Your task to perform on an android device: set default search engine in the chrome app Image 0: 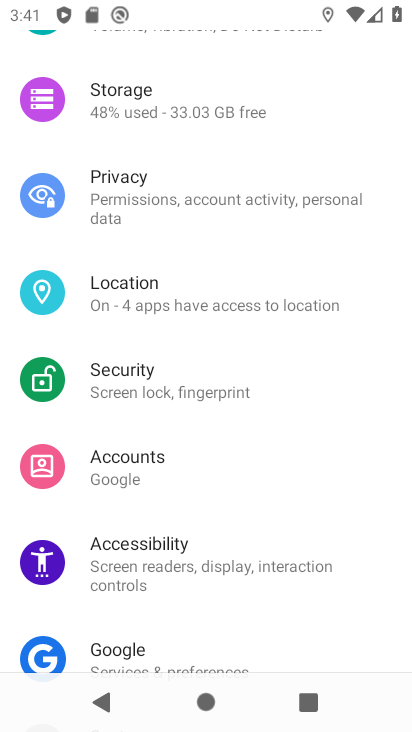
Step 0: press home button
Your task to perform on an android device: set default search engine in the chrome app Image 1: 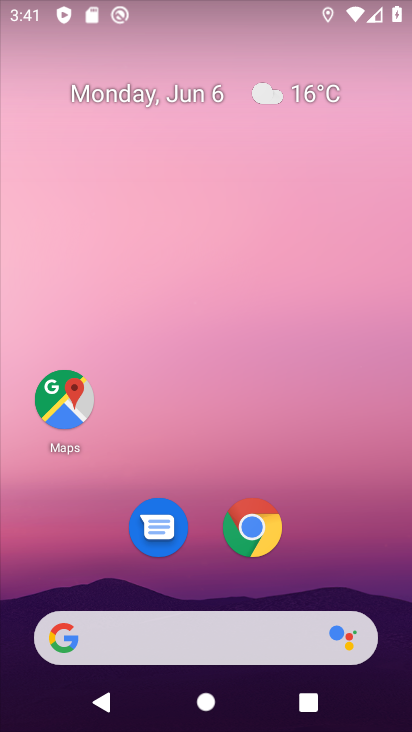
Step 1: click (269, 523)
Your task to perform on an android device: set default search engine in the chrome app Image 2: 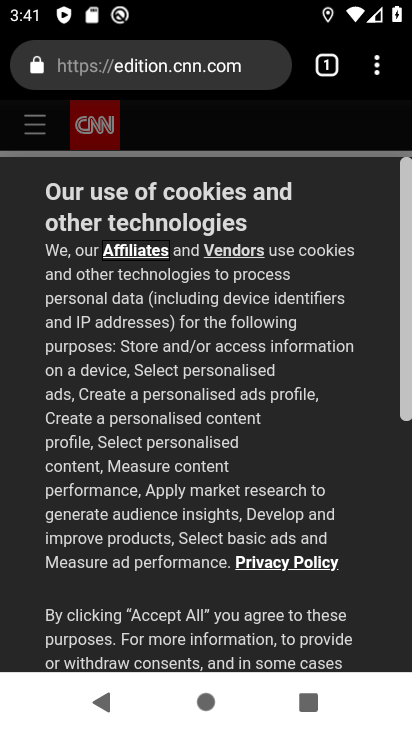
Step 2: click (378, 69)
Your task to perform on an android device: set default search engine in the chrome app Image 3: 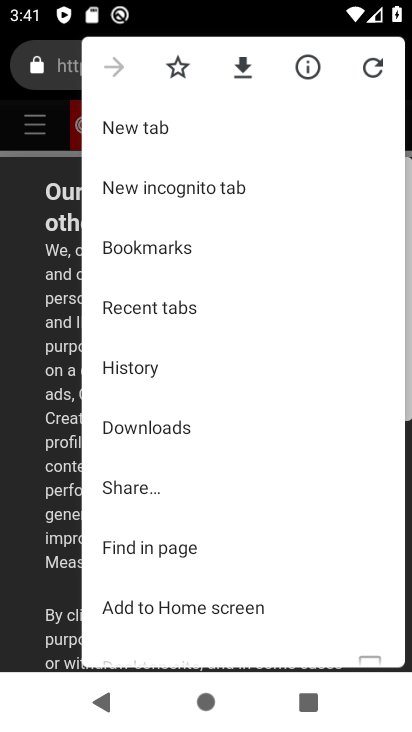
Step 3: drag from (298, 434) to (273, 43)
Your task to perform on an android device: set default search engine in the chrome app Image 4: 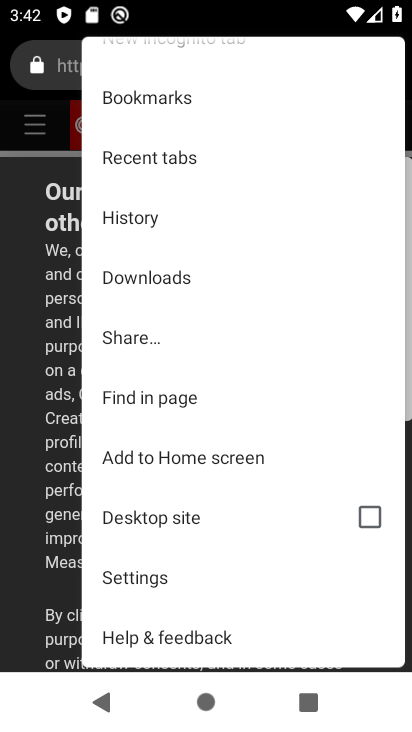
Step 4: click (157, 572)
Your task to perform on an android device: set default search engine in the chrome app Image 5: 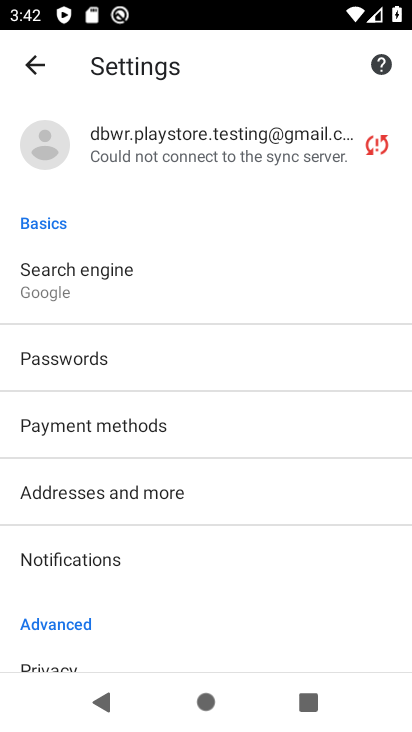
Step 5: drag from (259, 552) to (298, 227)
Your task to perform on an android device: set default search engine in the chrome app Image 6: 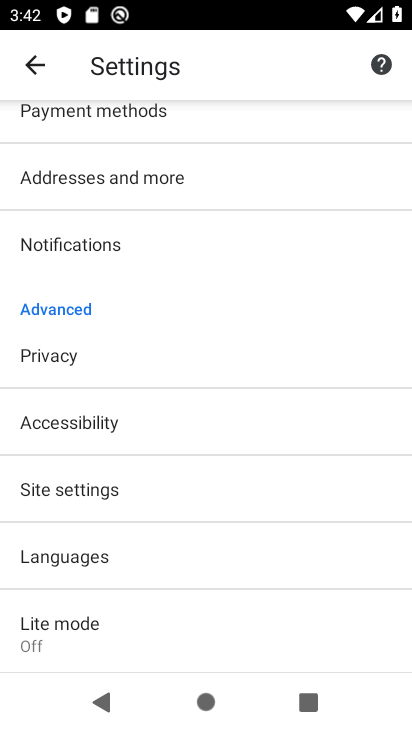
Step 6: drag from (257, 520) to (246, 308)
Your task to perform on an android device: set default search engine in the chrome app Image 7: 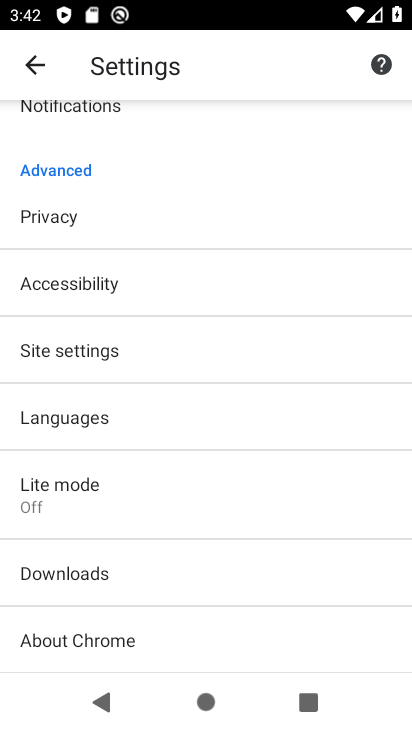
Step 7: click (116, 209)
Your task to perform on an android device: set default search engine in the chrome app Image 8: 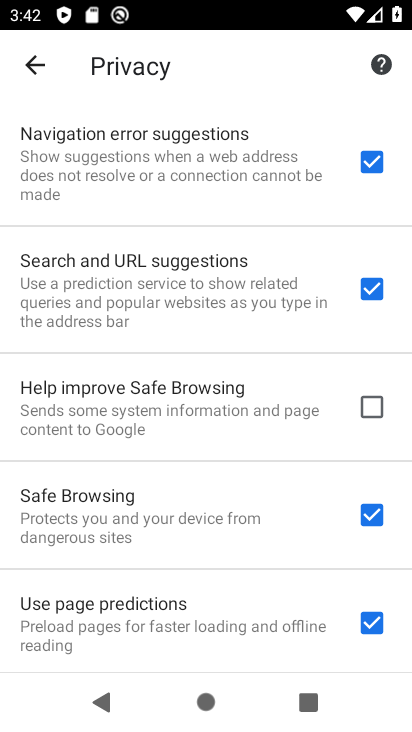
Step 8: drag from (117, 346) to (22, 25)
Your task to perform on an android device: set default search engine in the chrome app Image 9: 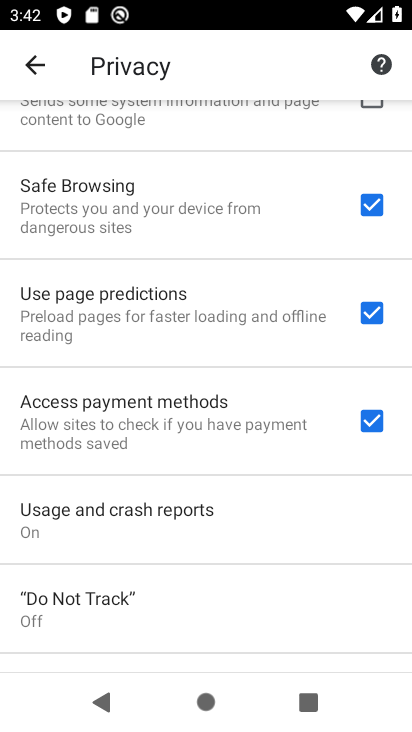
Step 9: drag from (184, 492) to (109, 48)
Your task to perform on an android device: set default search engine in the chrome app Image 10: 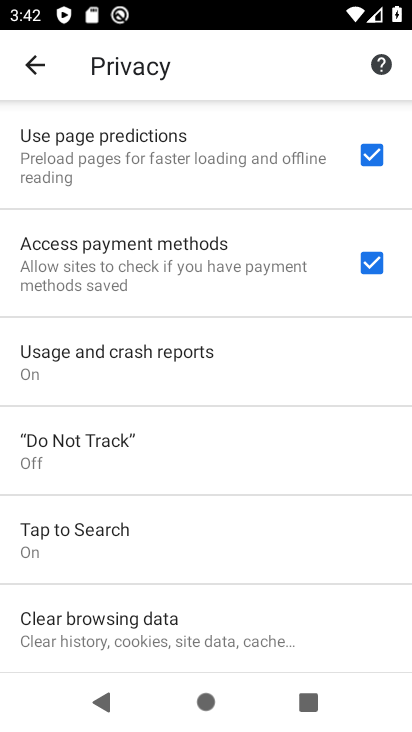
Step 10: click (22, 67)
Your task to perform on an android device: set default search engine in the chrome app Image 11: 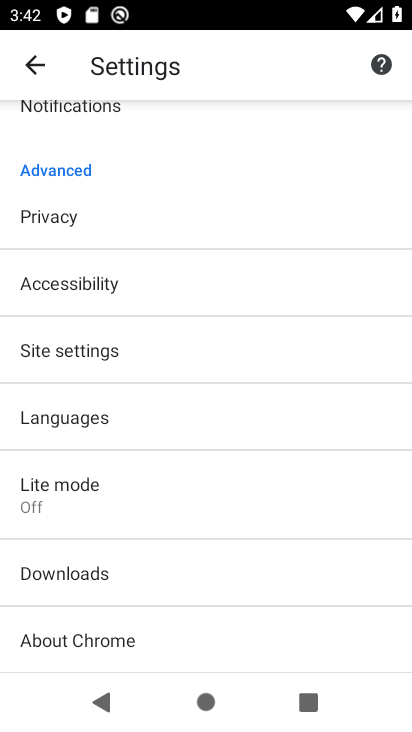
Step 11: click (122, 273)
Your task to perform on an android device: set default search engine in the chrome app Image 12: 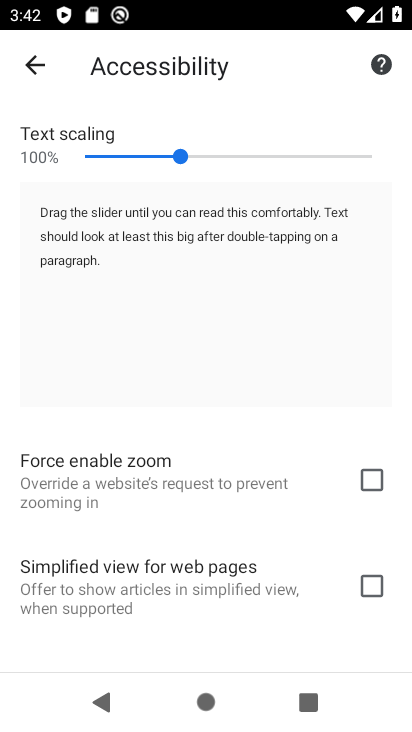
Step 12: drag from (166, 405) to (75, 93)
Your task to perform on an android device: set default search engine in the chrome app Image 13: 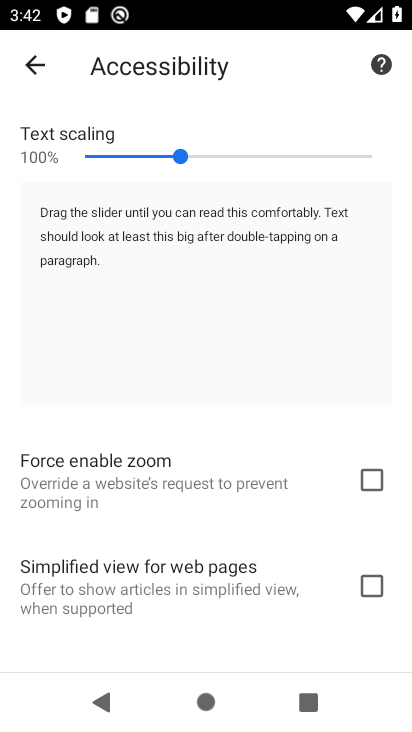
Step 13: click (21, 46)
Your task to perform on an android device: set default search engine in the chrome app Image 14: 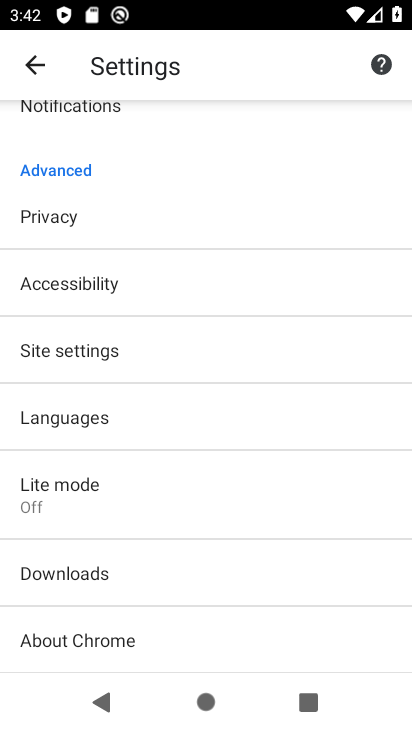
Step 14: click (118, 355)
Your task to perform on an android device: set default search engine in the chrome app Image 15: 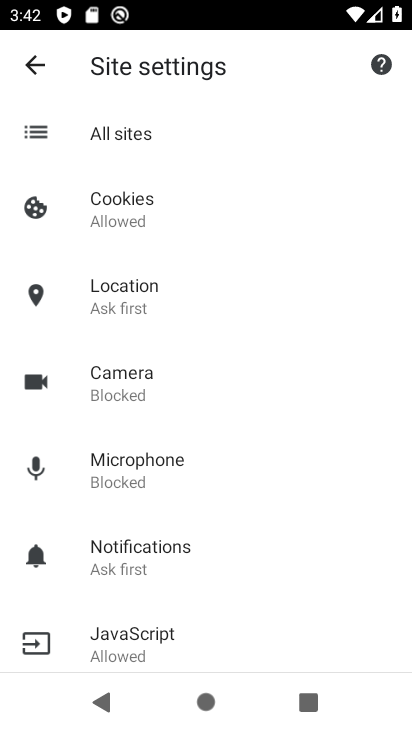
Step 15: drag from (245, 382) to (218, 104)
Your task to perform on an android device: set default search engine in the chrome app Image 16: 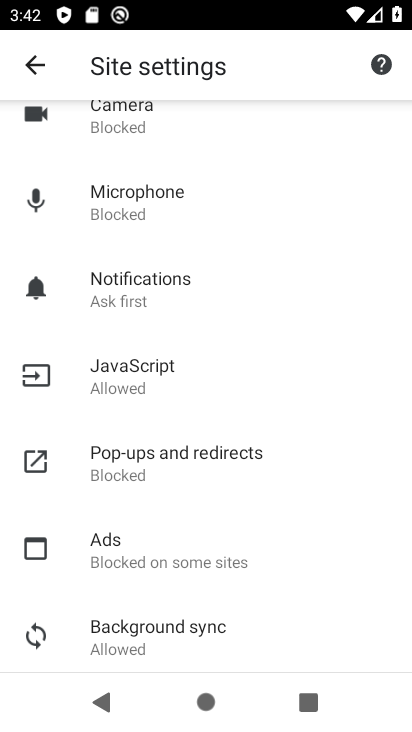
Step 16: drag from (269, 461) to (194, 188)
Your task to perform on an android device: set default search engine in the chrome app Image 17: 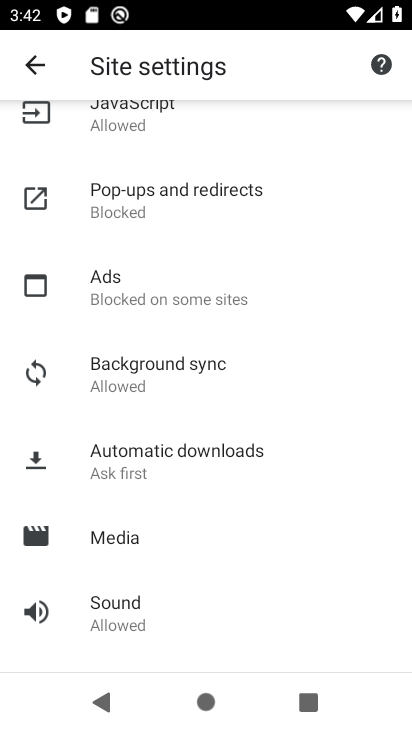
Step 17: drag from (262, 580) to (246, 383)
Your task to perform on an android device: set default search engine in the chrome app Image 18: 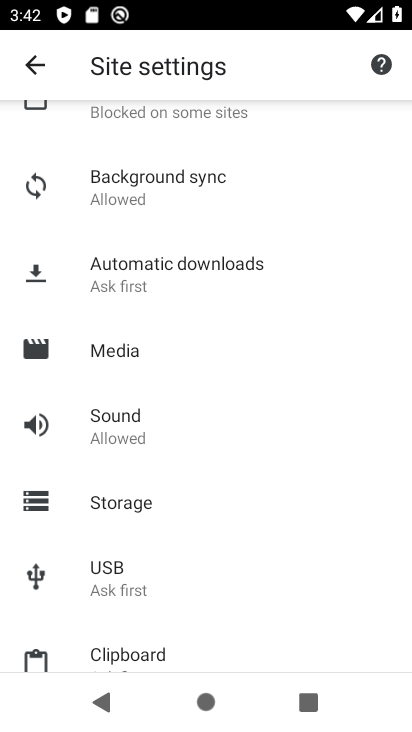
Step 18: click (263, 490)
Your task to perform on an android device: set default search engine in the chrome app Image 19: 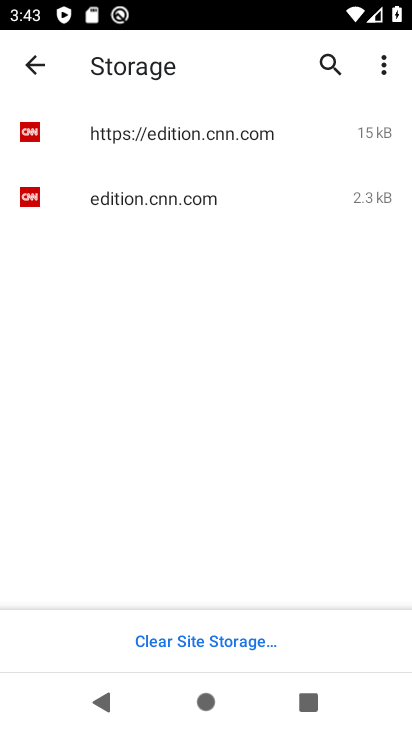
Step 19: task complete